Your task to perform on an android device: Open Android settings Image 0: 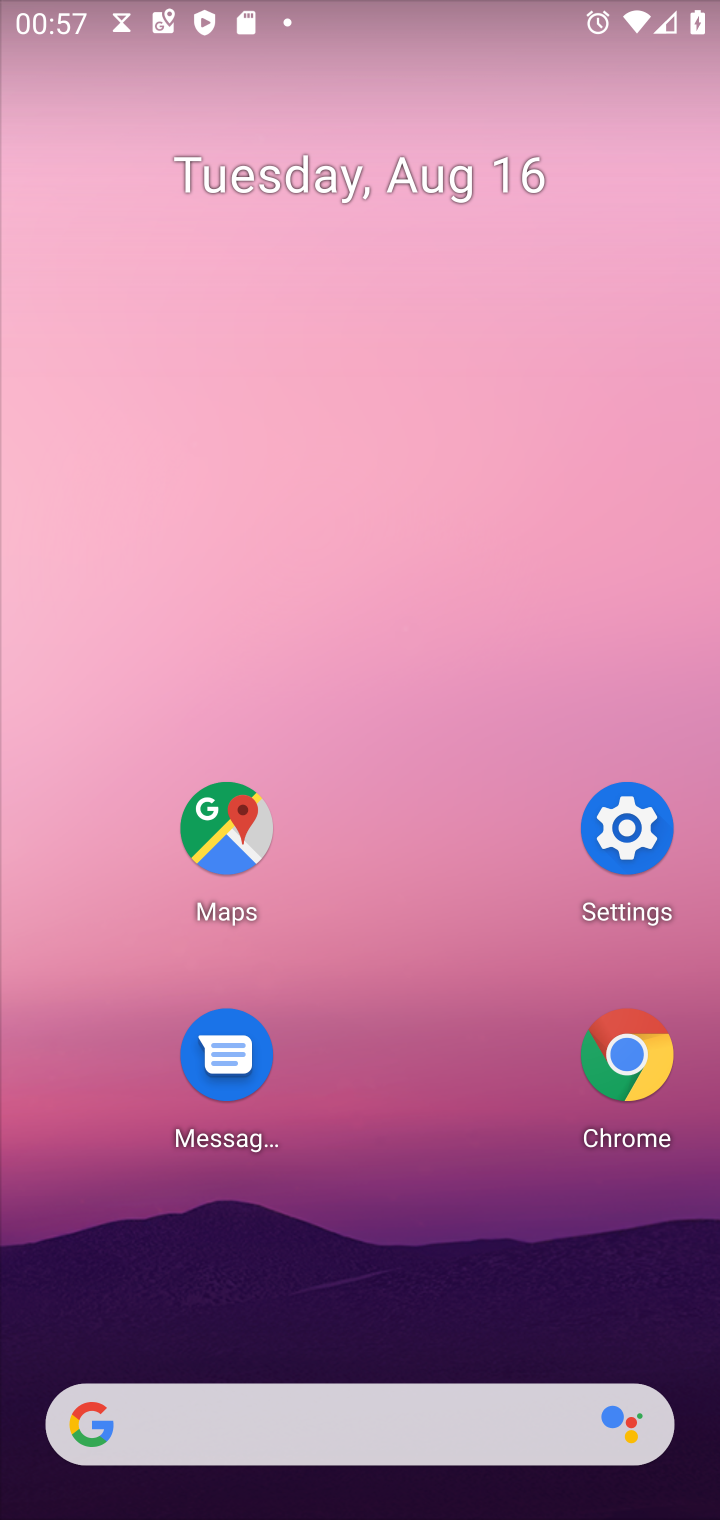
Step 0: press home button
Your task to perform on an android device: Open Android settings Image 1: 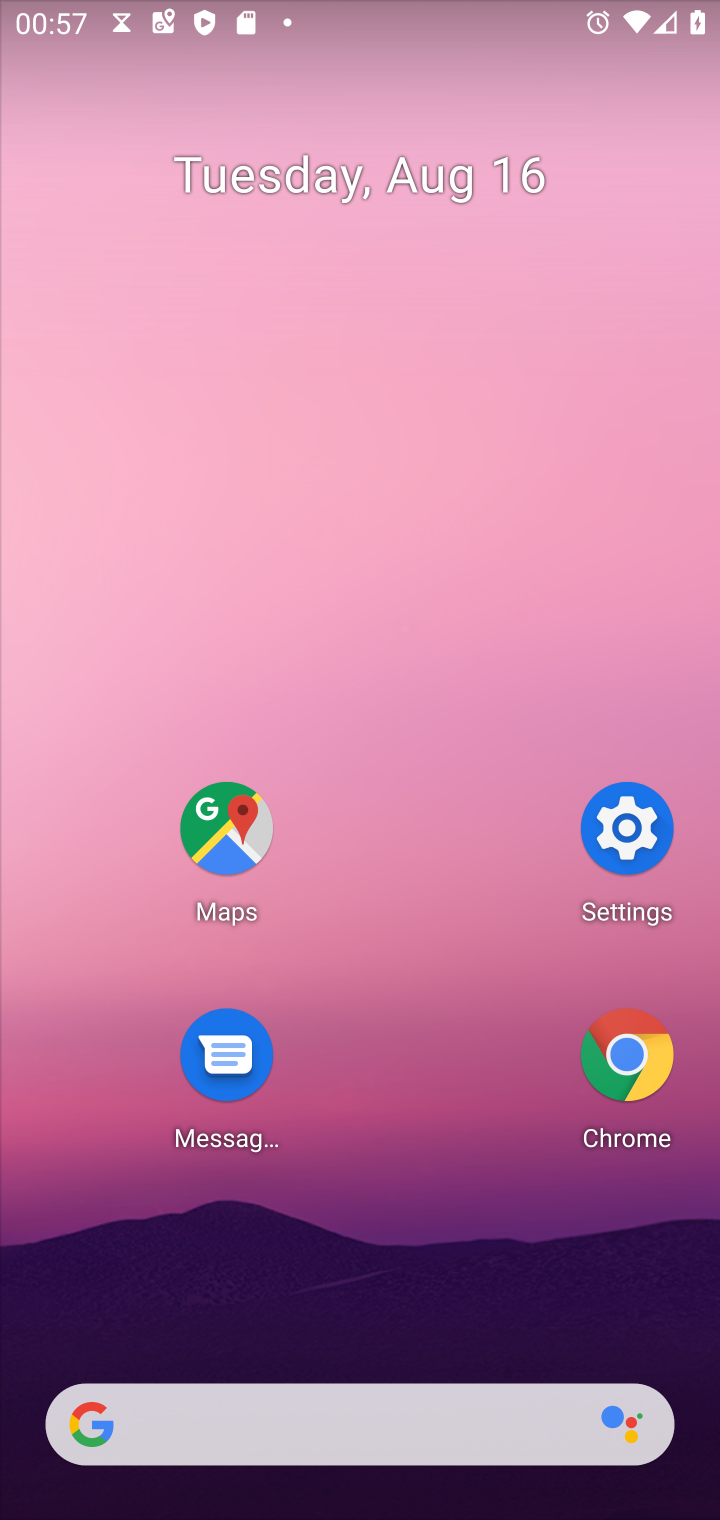
Step 1: click (623, 839)
Your task to perform on an android device: Open Android settings Image 2: 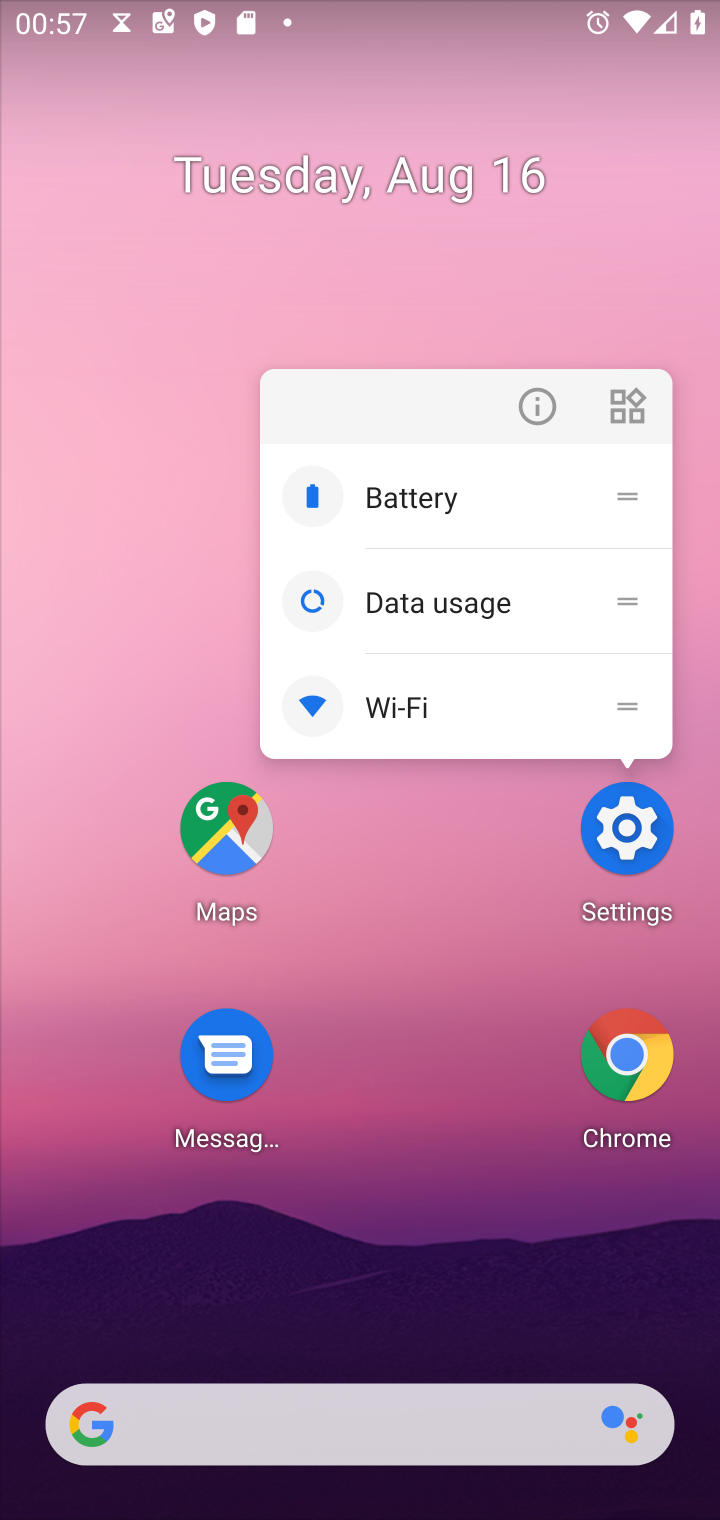
Step 2: click (627, 824)
Your task to perform on an android device: Open Android settings Image 3: 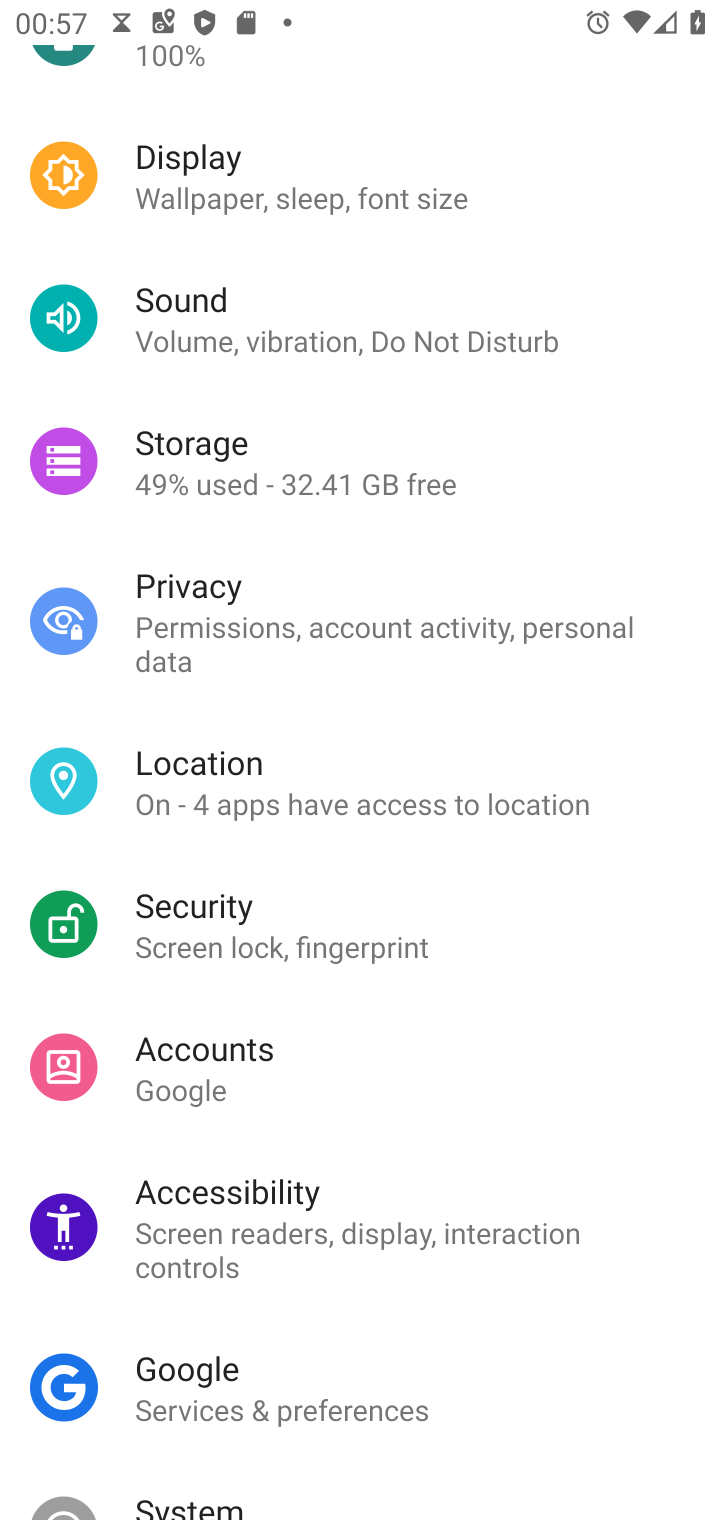
Step 3: task complete